Your task to perform on an android device: turn on airplane mode Image 0: 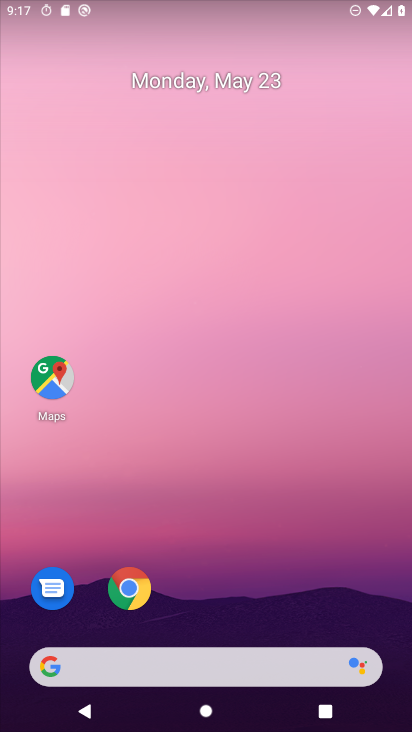
Step 0: drag from (389, 705) to (345, 170)
Your task to perform on an android device: turn on airplane mode Image 1: 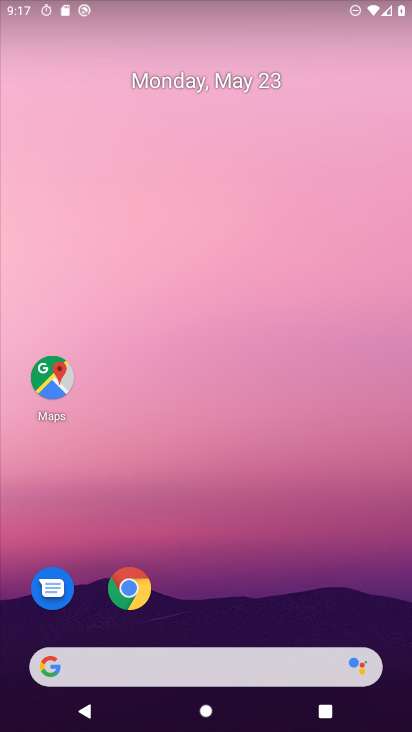
Step 1: drag from (389, 564) to (330, 142)
Your task to perform on an android device: turn on airplane mode Image 2: 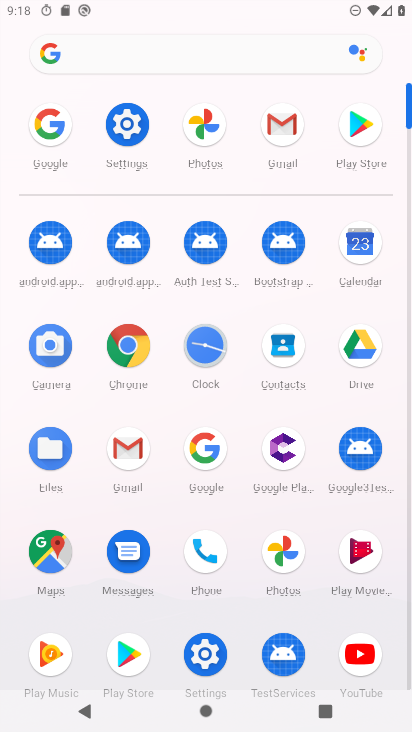
Step 2: click (131, 119)
Your task to perform on an android device: turn on airplane mode Image 3: 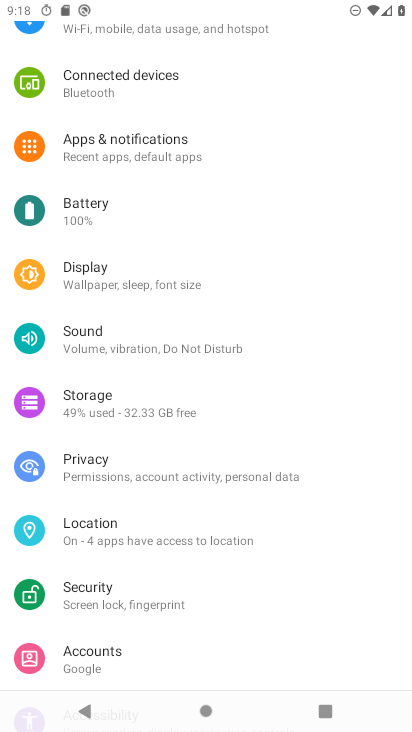
Step 3: drag from (347, 94) to (354, 589)
Your task to perform on an android device: turn on airplane mode Image 4: 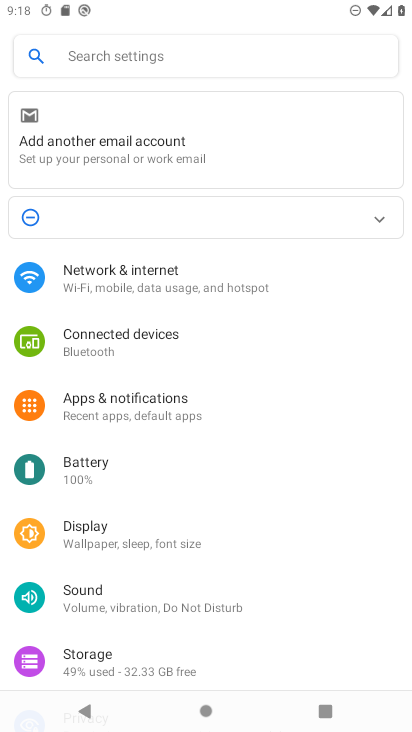
Step 4: drag from (314, 639) to (287, 326)
Your task to perform on an android device: turn on airplane mode Image 5: 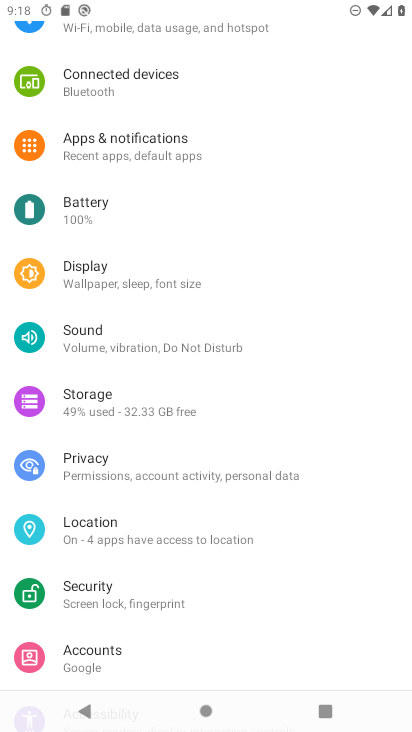
Step 5: drag from (271, 653) to (286, 390)
Your task to perform on an android device: turn on airplane mode Image 6: 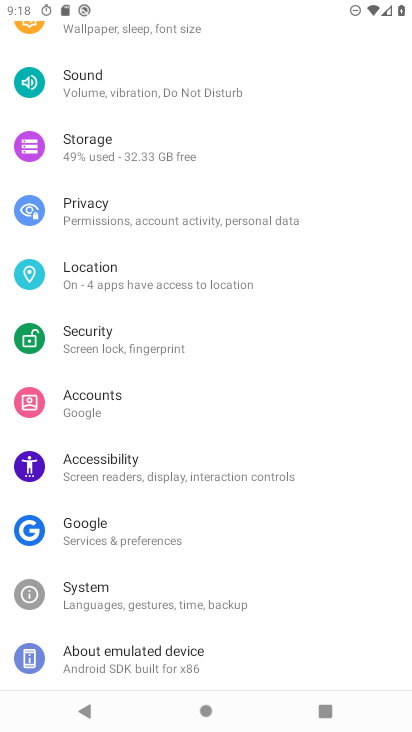
Step 6: drag from (325, 181) to (324, 578)
Your task to perform on an android device: turn on airplane mode Image 7: 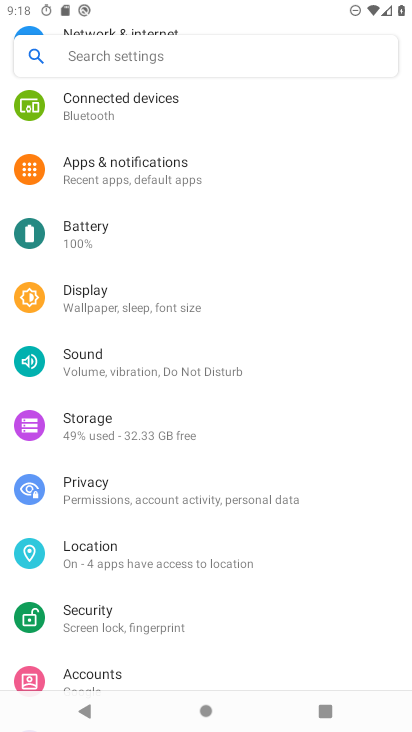
Step 7: drag from (316, 145) to (366, 496)
Your task to perform on an android device: turn on airplane mode Image 8: 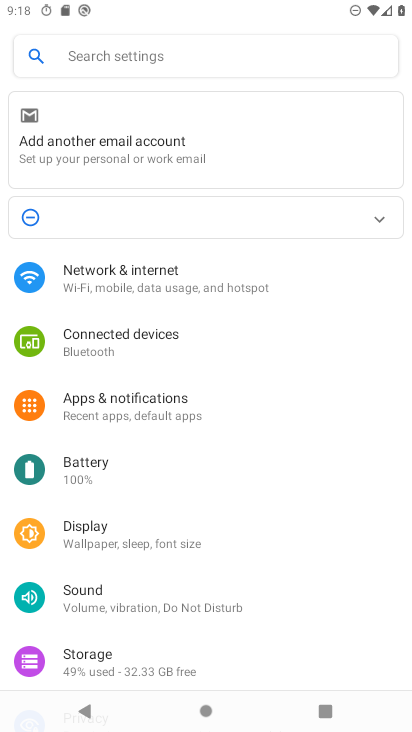
Step 8: click (117, 279)
Your task to perform on an android device: turn on airplane mode Image 9: 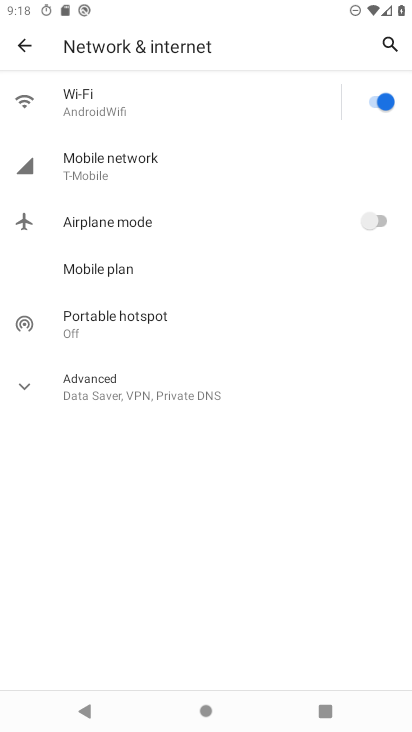
Step 9: click (372, 223)
Your task to perform on an android device: turn on airplane mode Image 10: 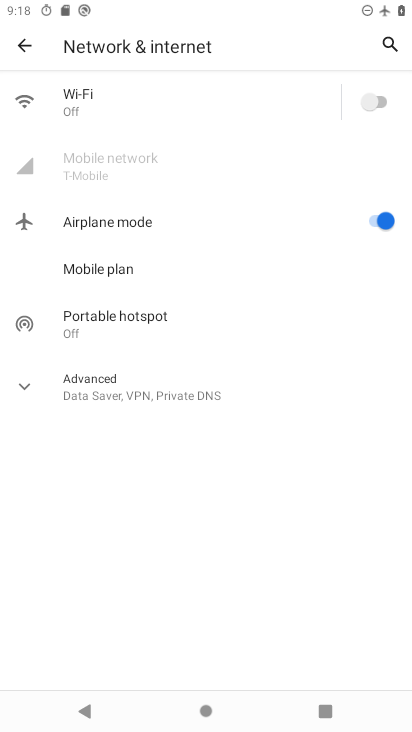
Step 10: task complete